Your task to perform on an android device: Go to Amazon Image 0: 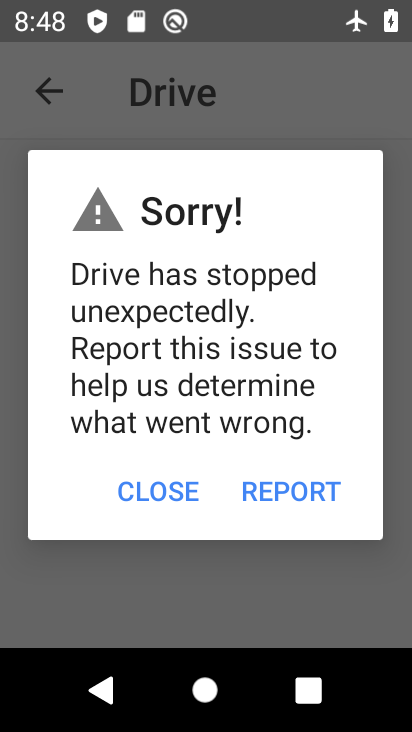
Step 0: drag from (378, 520) to (361, 225)
Your task to perform on an android device: Go to Amazon Image 1: 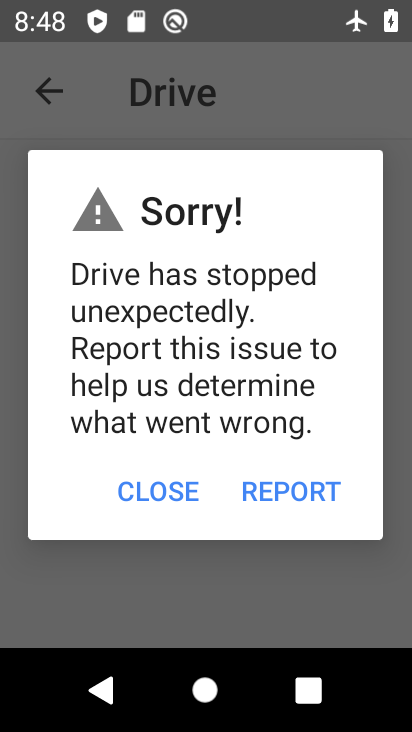
Step 1: press home button
Your task to perform on an android device: Go to Amazon Image 2: 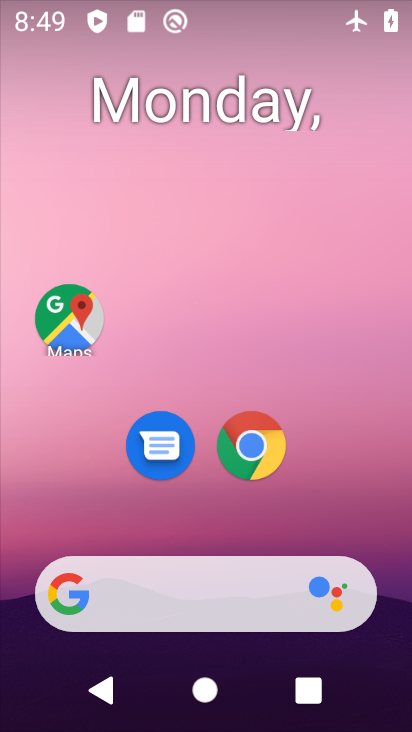
Step 2: drag from (359, 505) to (349, 133)
Your task to perform on an android device: Go to Amazon Image 3: 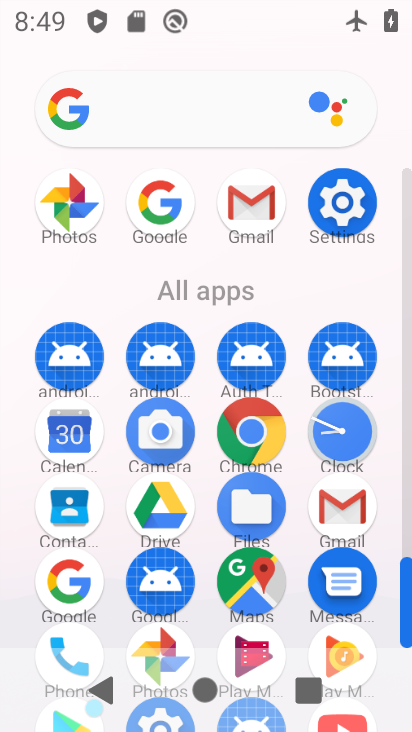
Step 3: click (245, 443)
Your task to perform on an android device: Go to Amazon Image 4: 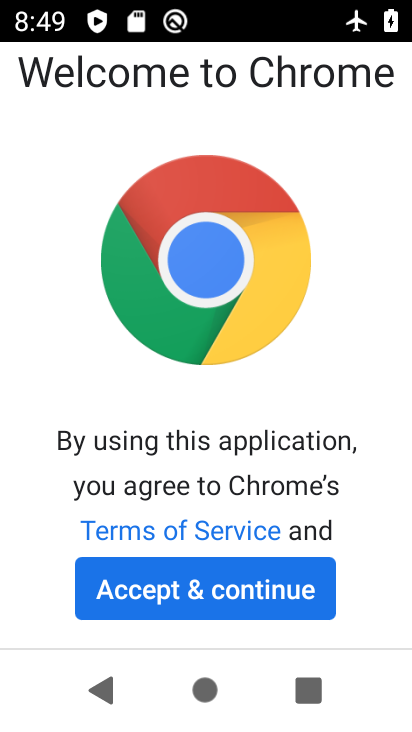
Step 4: click (260, 597)
Your task to perform on an android device: Go to Amazon Image 5: 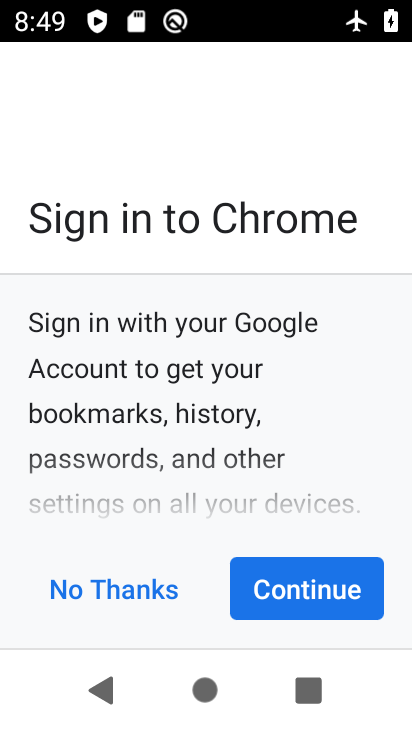
Step 5: click (260, 597)
Your task to perform on an android device: Go to Amazon Image 6: 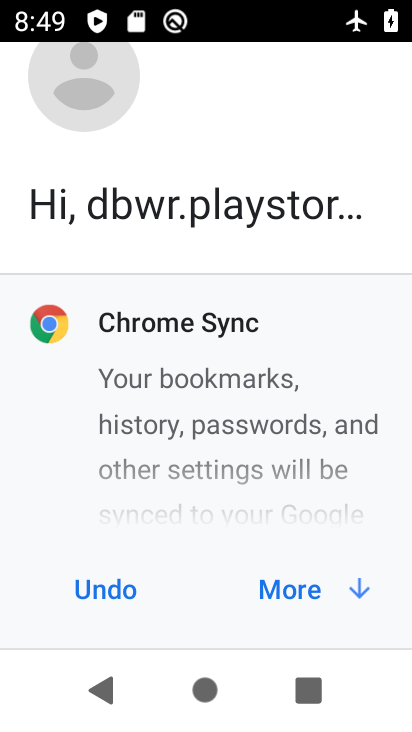
Step 6: click (288, 602)
Your task to perform on an android device: Go to Amazon Image 7: 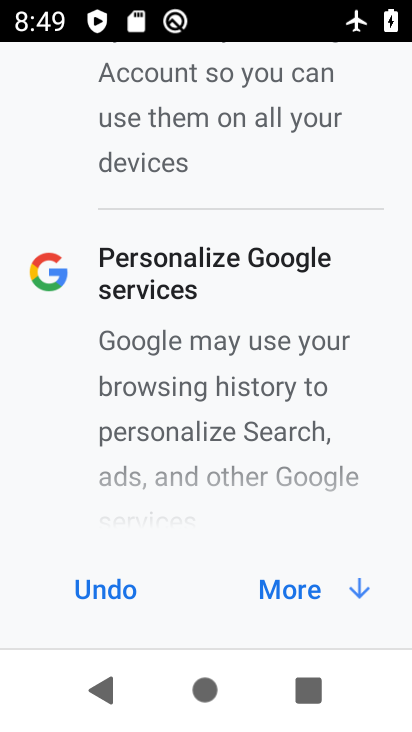
Step 7: click (288, 602)
Your task to perform on an android device: Go to Amazon Image 8: 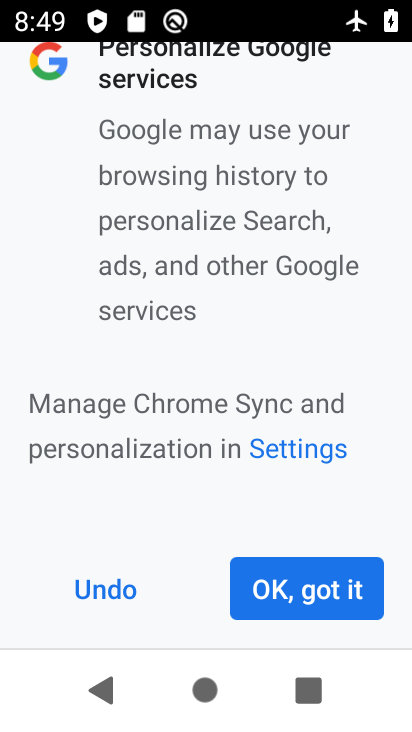
Step 8: click (288, 602)
Your task to perform on an android device: Go to Amazon Image 9: 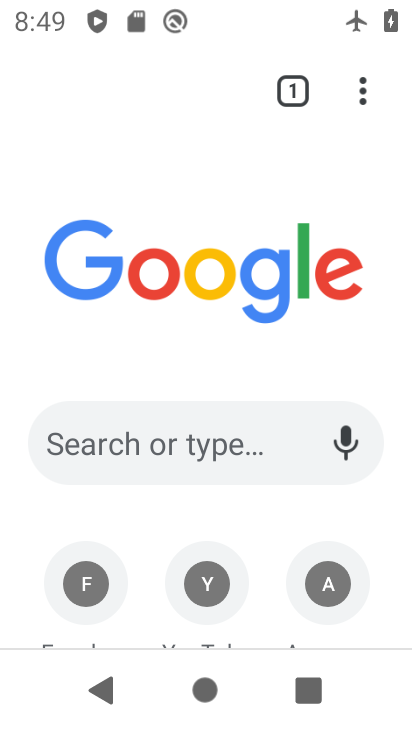
Step 9: drag from (260, 508) to (271, 244)
Your task to perform on an android device: Go to Amazon Image 10: 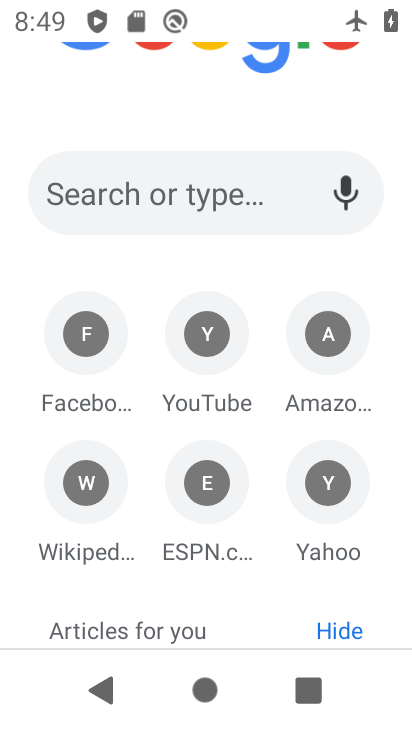
Step 10: click (332, 347)
Your task to perform on an android device: Go to Amazon Image 11: 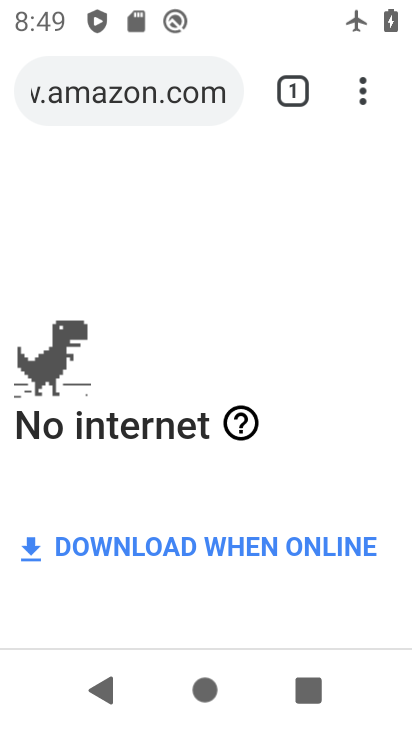
Step 11: task complete